Your task to perform on an android device: Search for vegetarian restaurants on Maps Image 0: 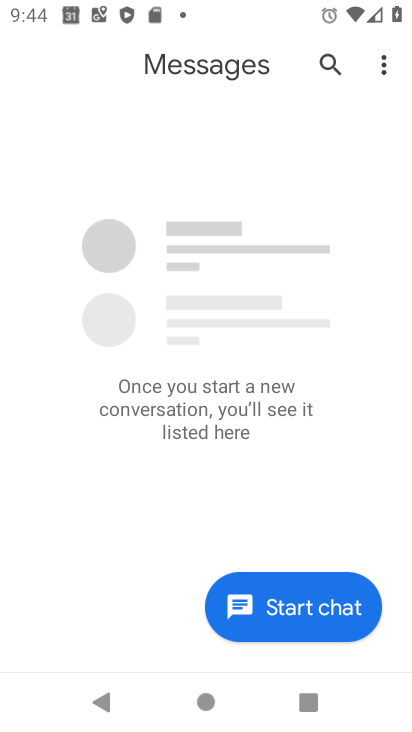
Step 0: click (267, 535)
Your task to perform on an android device: Search for vegetarian restaurants on Maps Image 1: 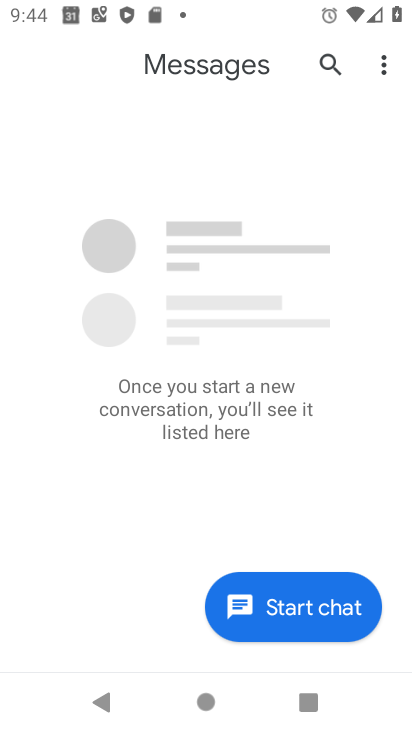
Step 1: press home button
Your task to perform on an android device: Search for vegetarian restaurants on Maps Image 2: 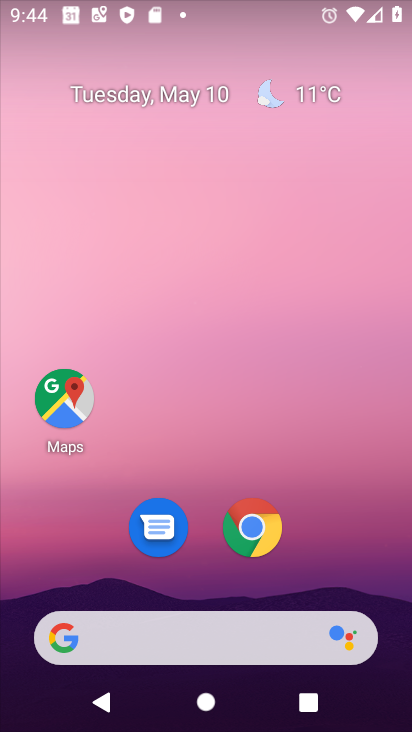
Step 2: click (85, 397)
Your task to perform on an android device: Search for vegetarian restaurants on Maps Image 3: 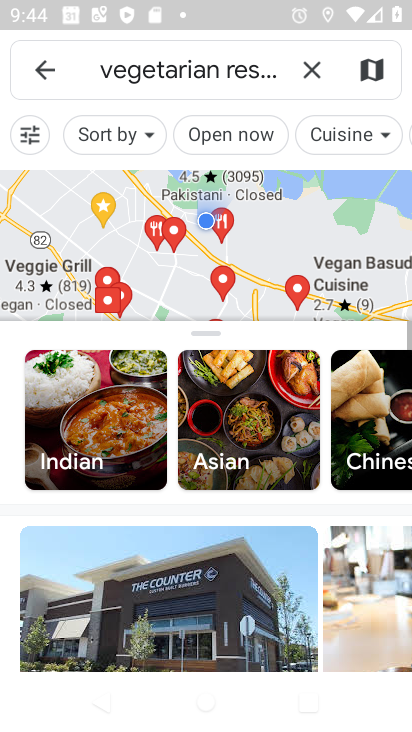
Step 3: task complete